Your task to perform on an android device: Open Google Chrome Image 0: 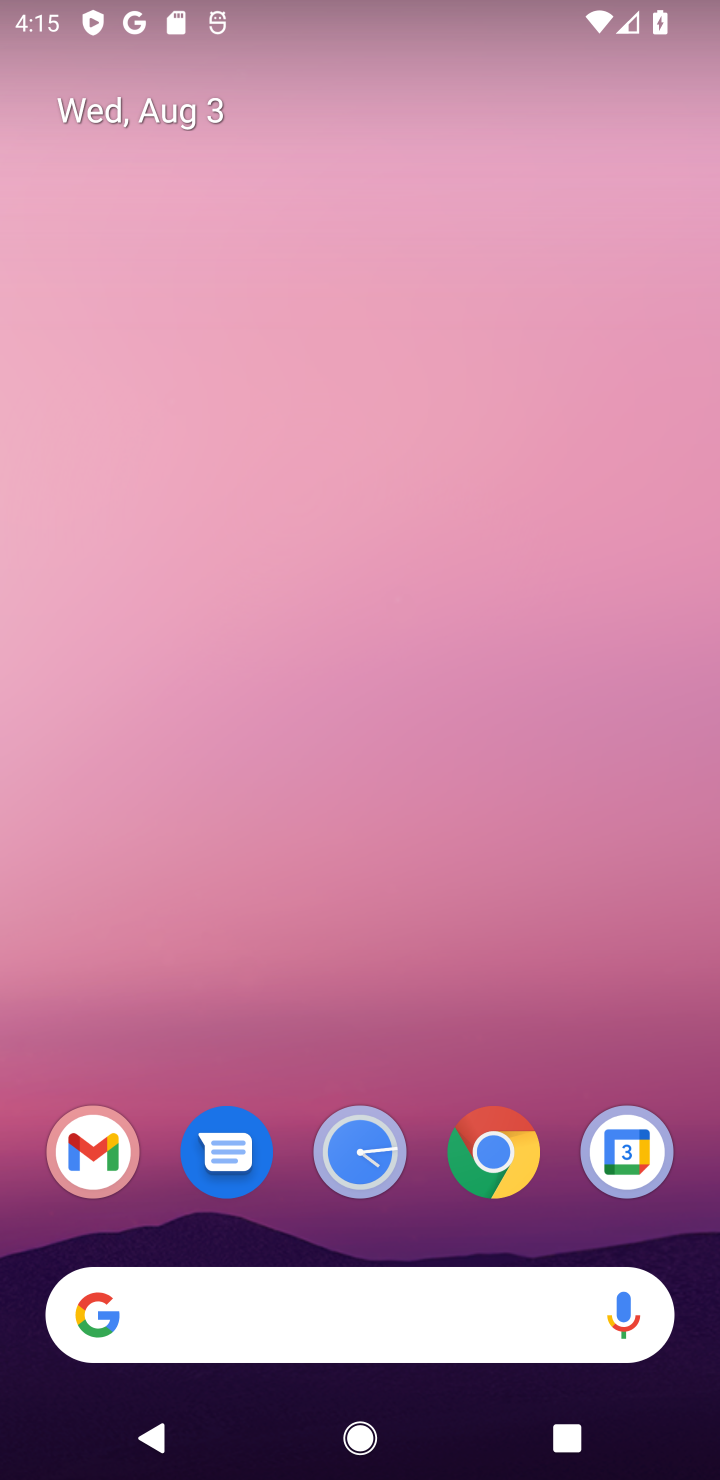
Step 0: click (499, 1165)
Your task to perform on an android device: Open Google Chrome Image 1: 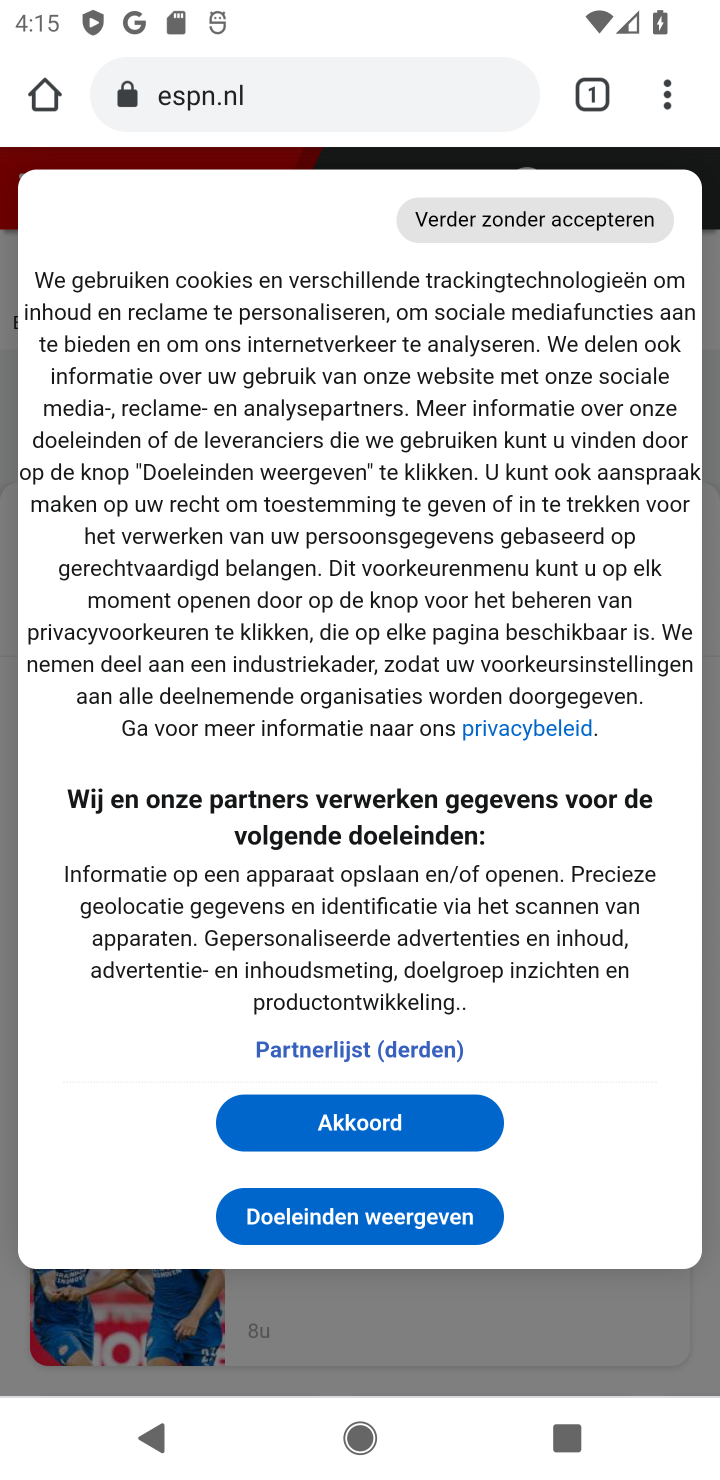
Step 1: task complete